Your task to perform on an android device: choose inbox layout in the gmail app Image 0: 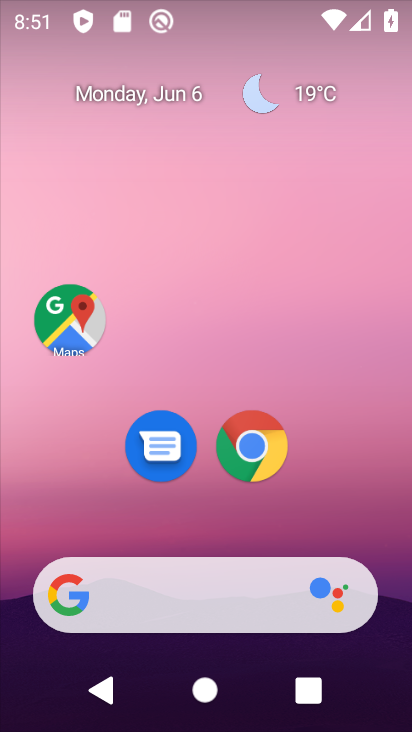
Step 0: drag from (155, 567) to (223, 50)
Your task to perform on an android device: choose inbox layout in the gmail app Image 1: 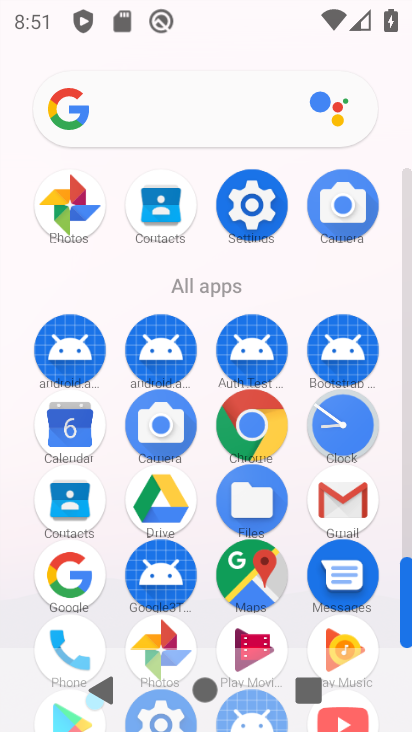
Step 1: click (336, 510)
Your task to perform on an android device: choose inbox layout in the gmail app Image 2: 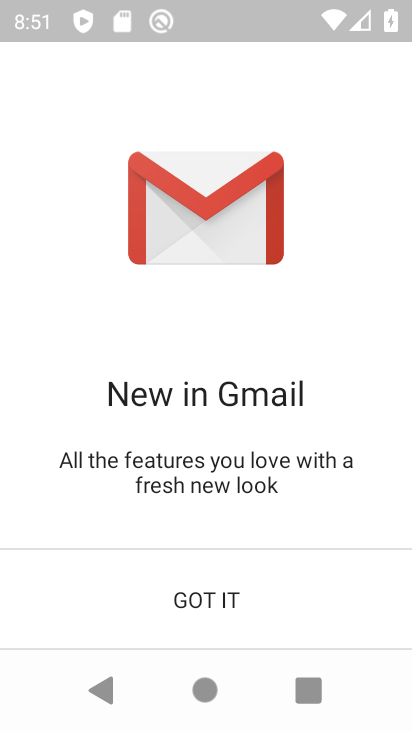
Step 2: click (202, 598)
Your task to perform on an android device: choose inbox layout in the gmail app Image 3: 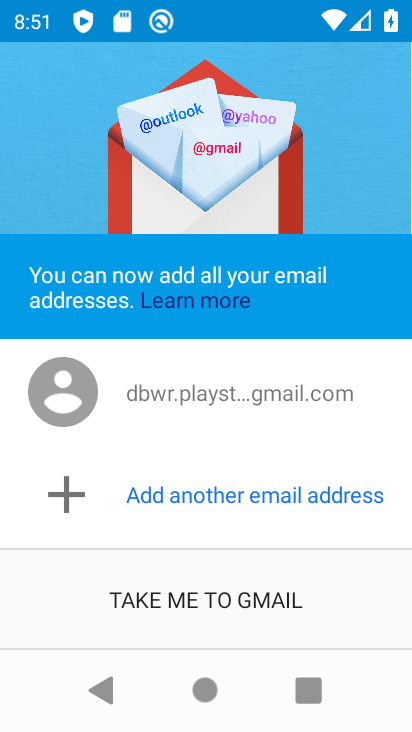
Step 3: click (192, 590)
Your task to perform on an android device: choose inbox layout in the gmail app Image 4: 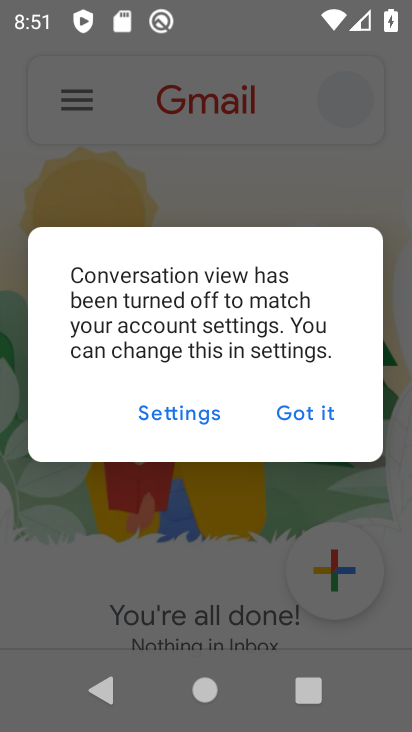
Step 4: click (288, 421)
Your task to perform on an android device: choose inbox layout in the gmail app Image 5: 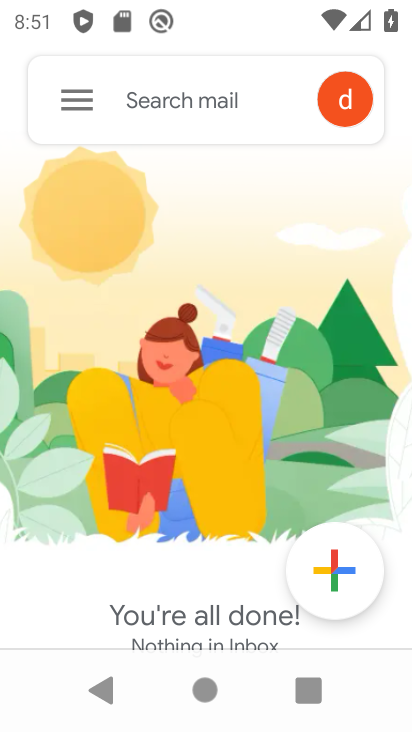
Step 5: click (60, 113)
Your task to perform on an android device: choose inbox layout in the gmail app Image 6: 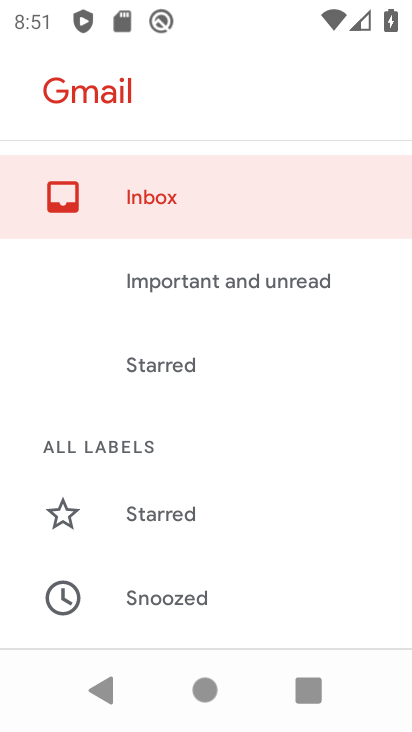
Step 6: drag from (156, 610) to (192, 234)
Your task to perform on an android device: choose inbox layout in the gmail app Image 7: 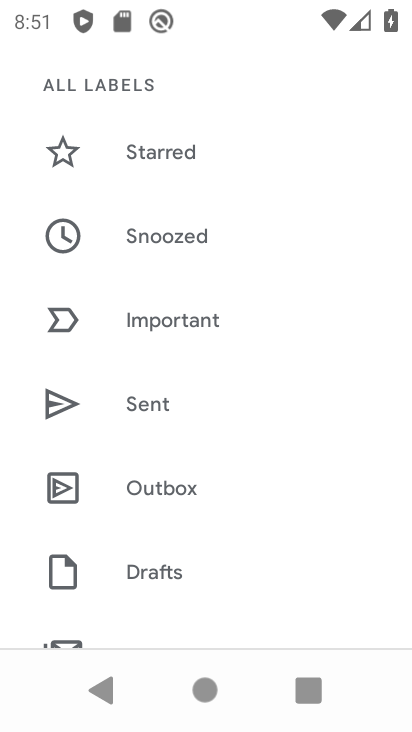
Step 7: drag from (143, 595) to (186, 191)
Your task to perform on an android device: choose inbox layout in the gmail app Image 8: 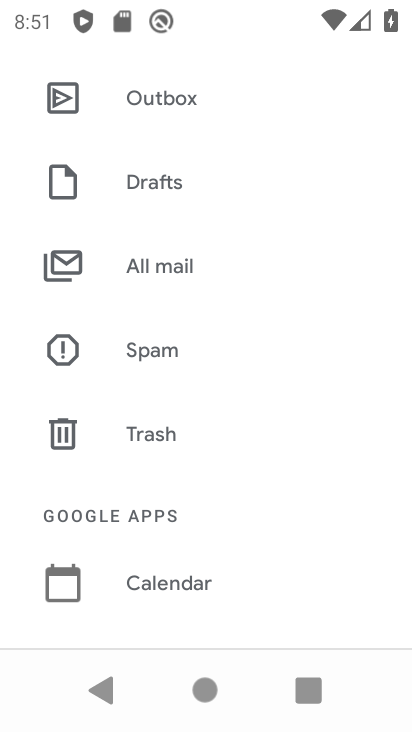
Step 8: drag from (188, 603) to (188, 271)
Your task to perform on an android device: choose inbox layout in the gmail app Image 9: 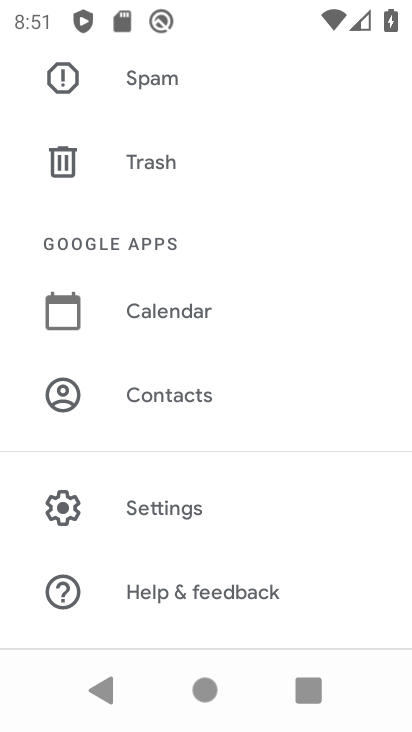
Step 9: click (168, 505)
Your task to perform on an android device: choose inbox layout in the gmail app Image 10: 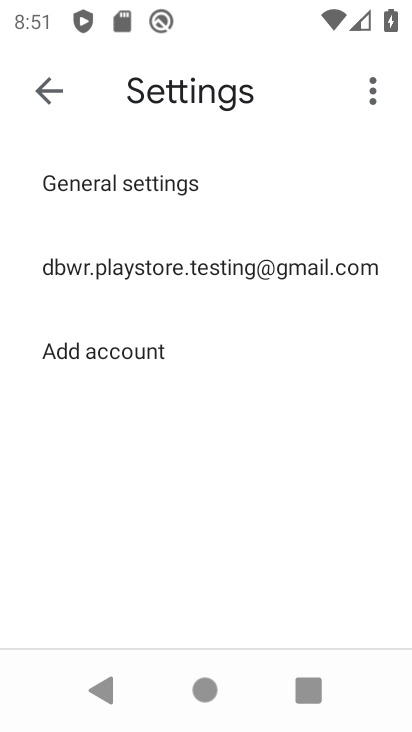
Step 10: click (175, 269)
Your task to perform on an android device: choose inbox layout in the gmail app Image 11: 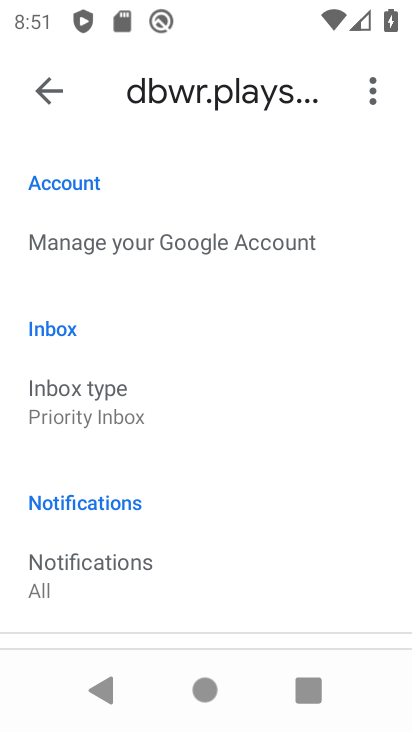
Step 11: task complete